Your task to perform on an android device: turn vacation reply on in the gmail app Image 0: 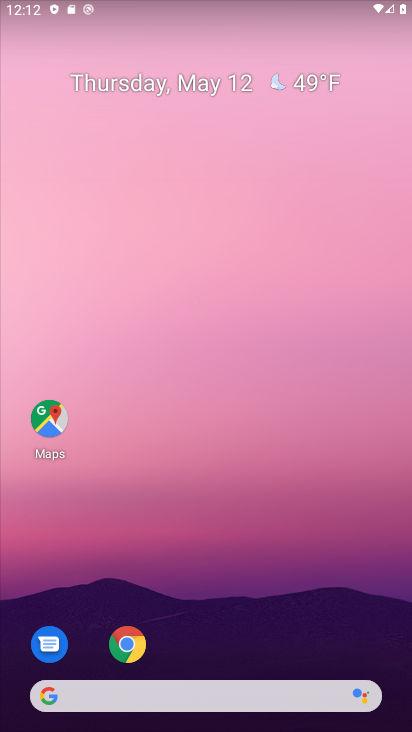
Step 0: drag from (198, 608) to (115, 85)
Your task to perform on an android device: turn vacation reply on in the gmail app Image 1: 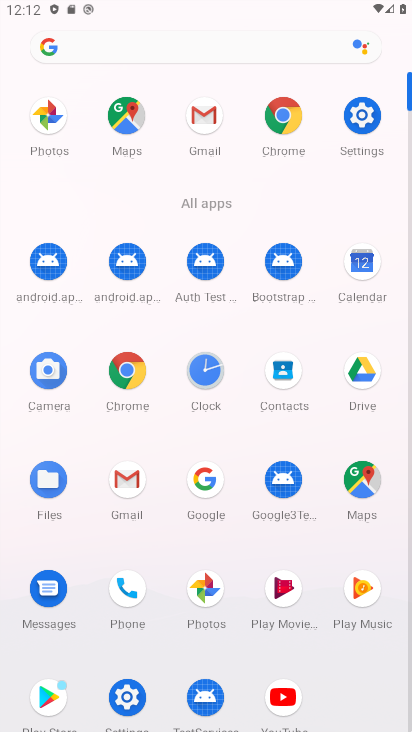
Step 1: click (199, 112)
Your task to perform on an android device: turn vacation reply on in the gmail app Image 2: 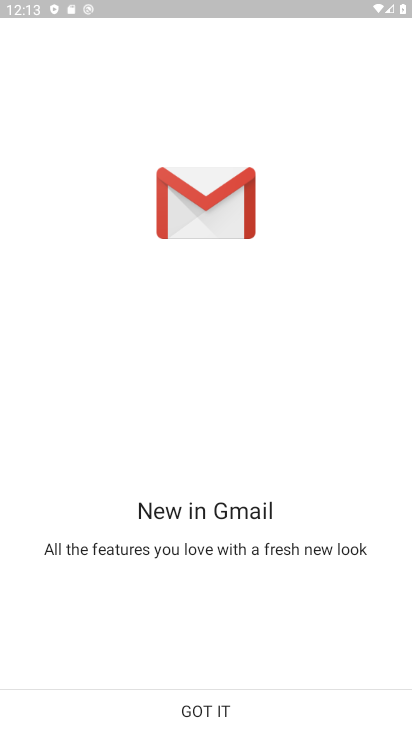
Step 2: click (198, 708)
Your task to perform on an android device: turn vacation reply on in the gmail app Image 3: 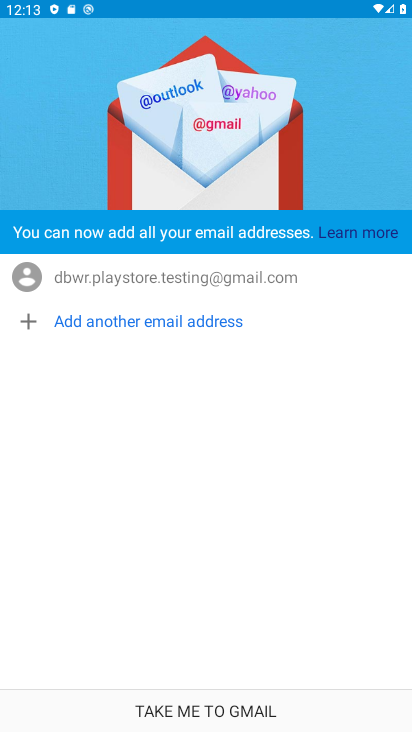
Step 3: click (210, 708)
Your task to perform on an android device: turn vacation reply on in the gmail app Image 4: 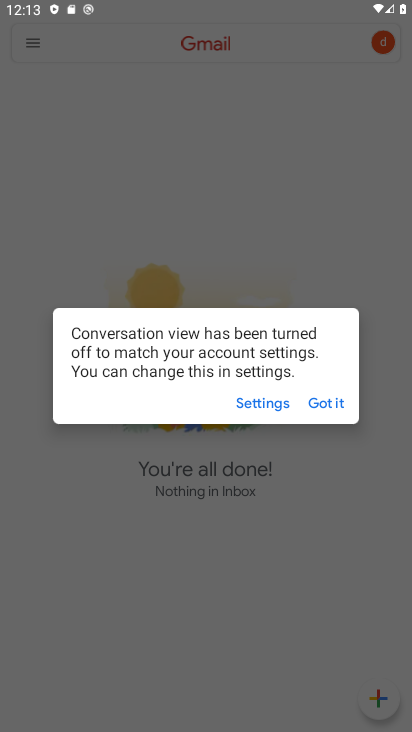
Step 4: click (319, 402)
Your task to perform on an android device: turn vacation reply on in the gmail app Image 5: 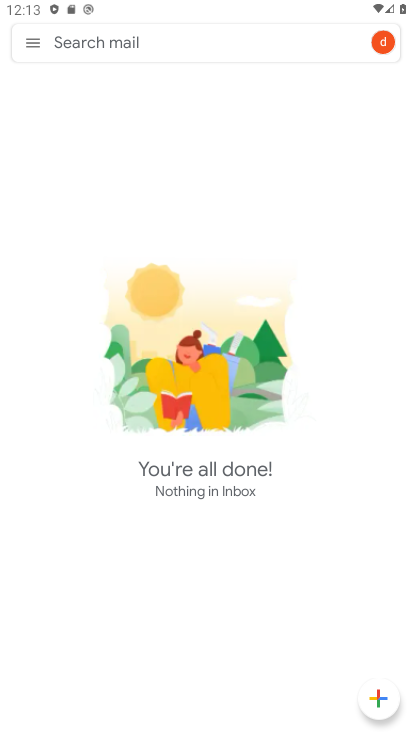
Step 5: click (34, 36)
Your task to perform on an android device: turn vacation reply on in the gmail app Image 6: 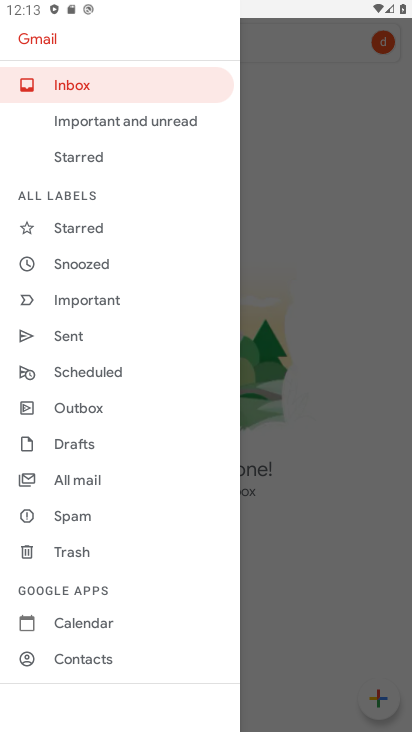
Step 6: drag from (156, 597) to (139, 273)
Your task to perform on an android device: turn vacation reply on in the gmail app Image 7: 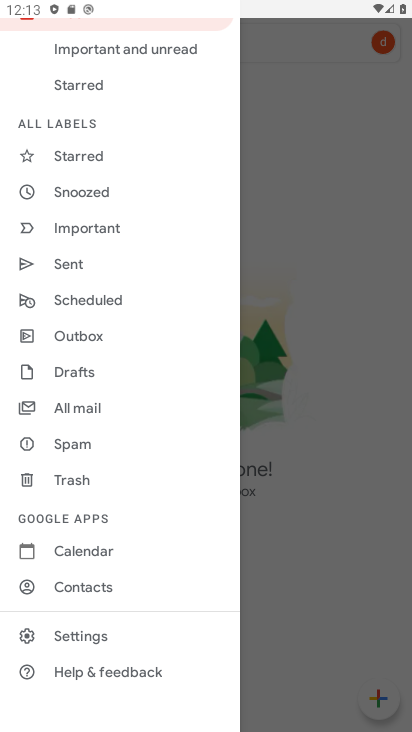
Step 7: click (80, 633)
Your task to perform on an android device: turn vacation reply on in the gmail app Image 8: 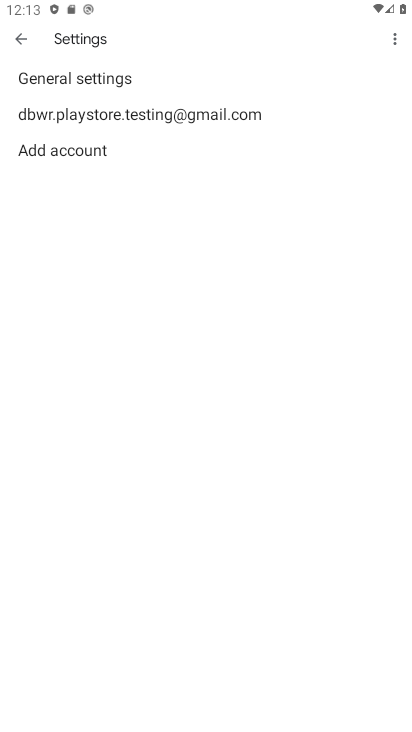
Step 8: click (89, 113)
Your task to perform on an android device: turn vacation reply on in the gmail app Image 9: 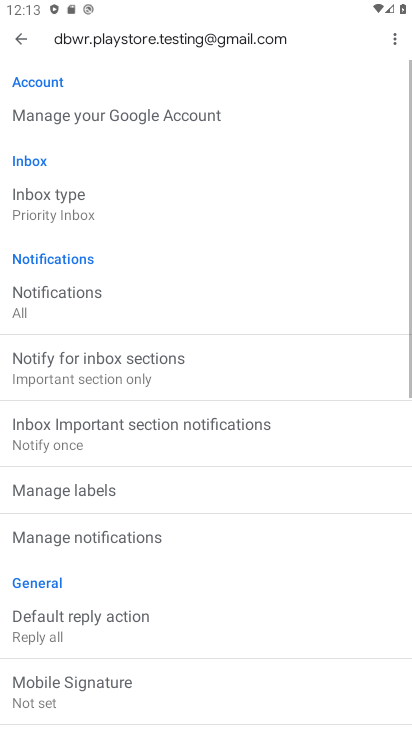
Step 9: click (110, 114)
Your task to perform on an android device: turn vacation reply on in the gmail app Image 10: 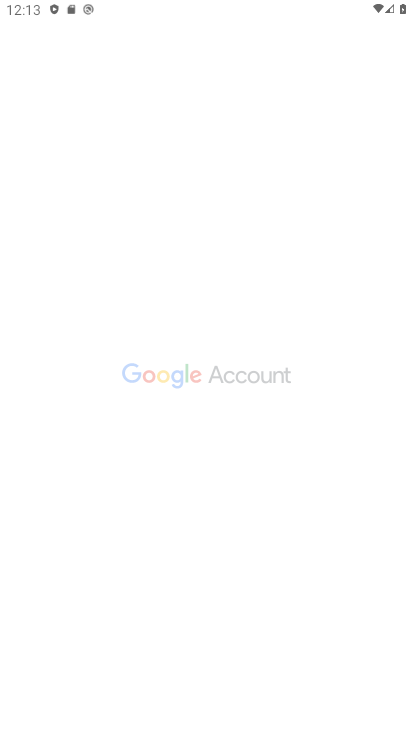
Step 10: drag from (178, 544) to (173, 194)
Your task to perform on an android device: turn vacation reply on in the gmail app Image 11: 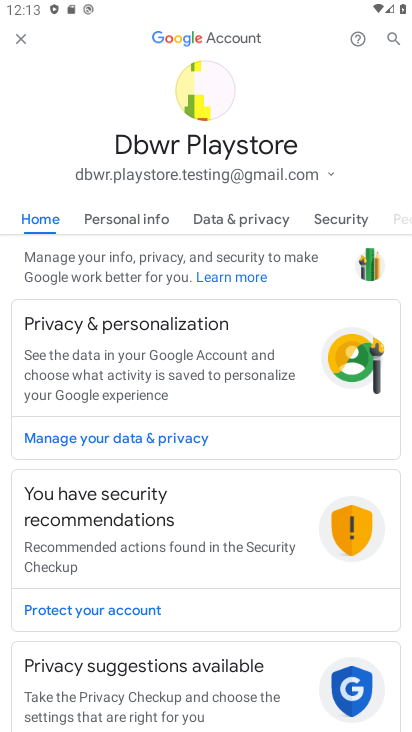
Step 11: click (22, 38)
Your task to perform on an android device: turn vacation reply on in the gmail app Image 12: 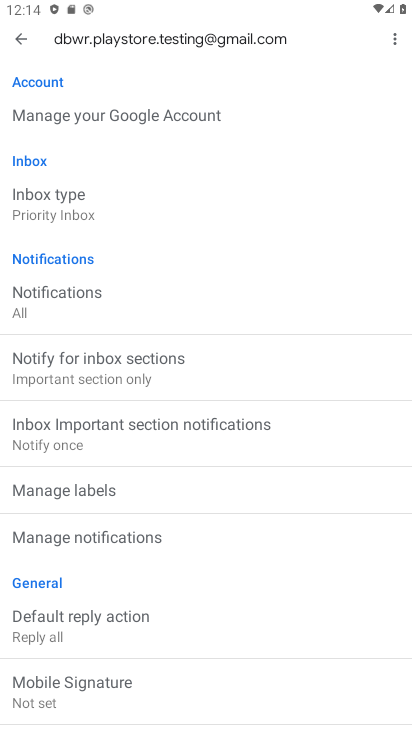
Step 12: drag from (155, 546) to (143, 263)
Your task to perform on an android device: turn vacation reply on in the gmail app Image 13: 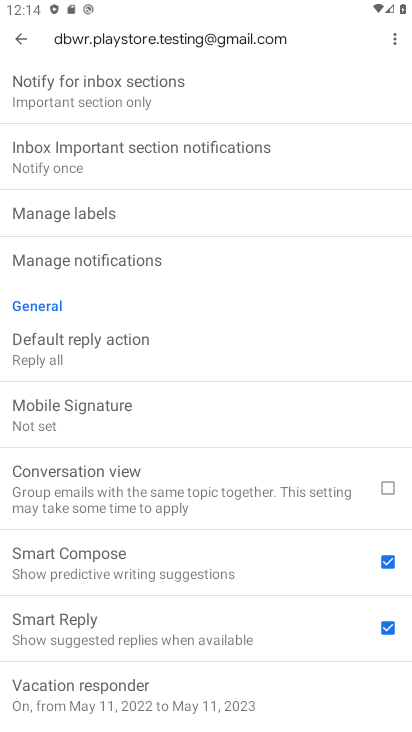
Step 13: click (117, 683)
Your task to perform on an android device: turn vacation reply on in the gmail app Image 14: 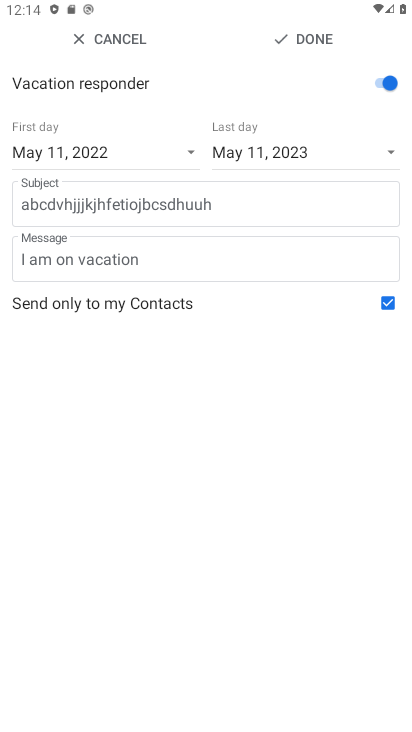
Step 14: task complete